Your task to perform on an android device: Open Youtube and go to "Your channel" Image 0: 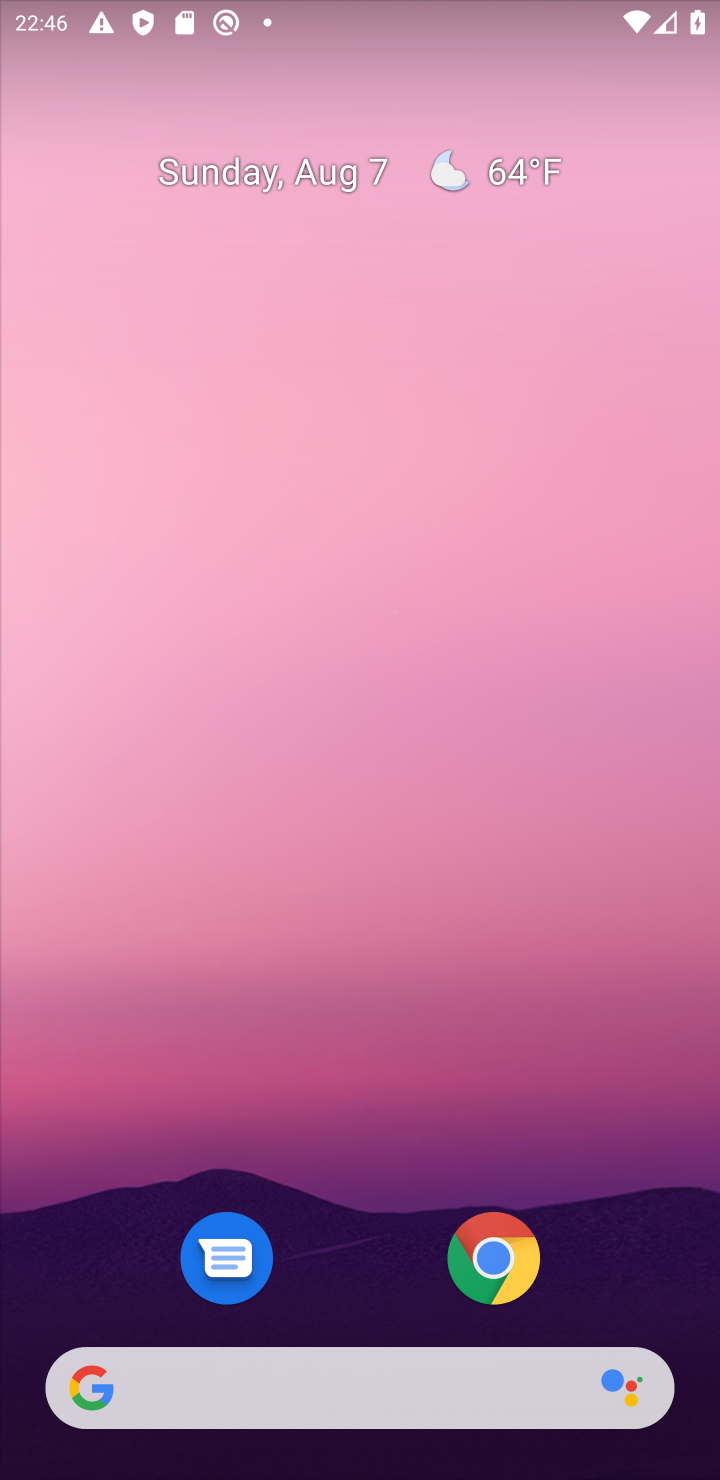
Step 0: press home button
Your task to perform on an android device: Open Youtube and go to "Your channel" Image 1: 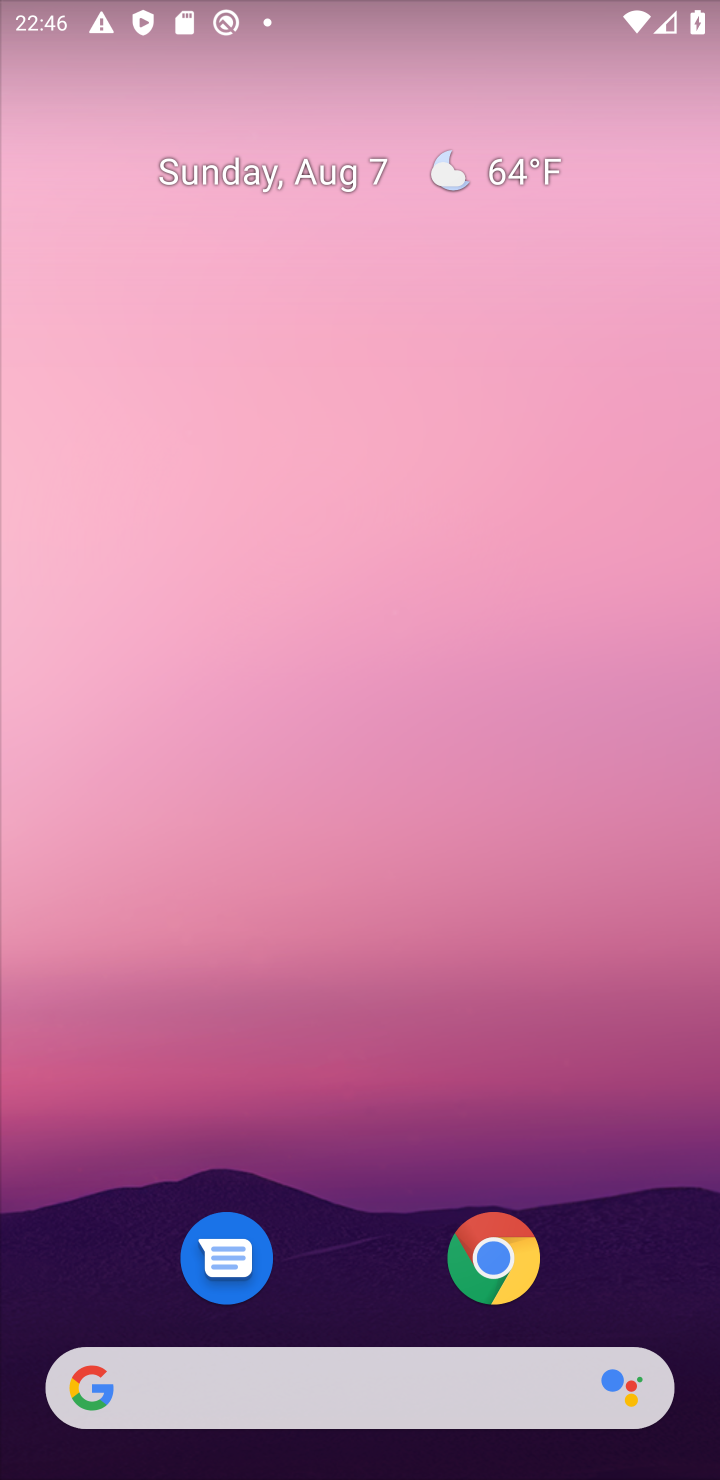
Step 1: drag from (358, 1160) to (279, 811)
Your task to perform on an android device: Open Youtube and go to "Your channel" Image 2: 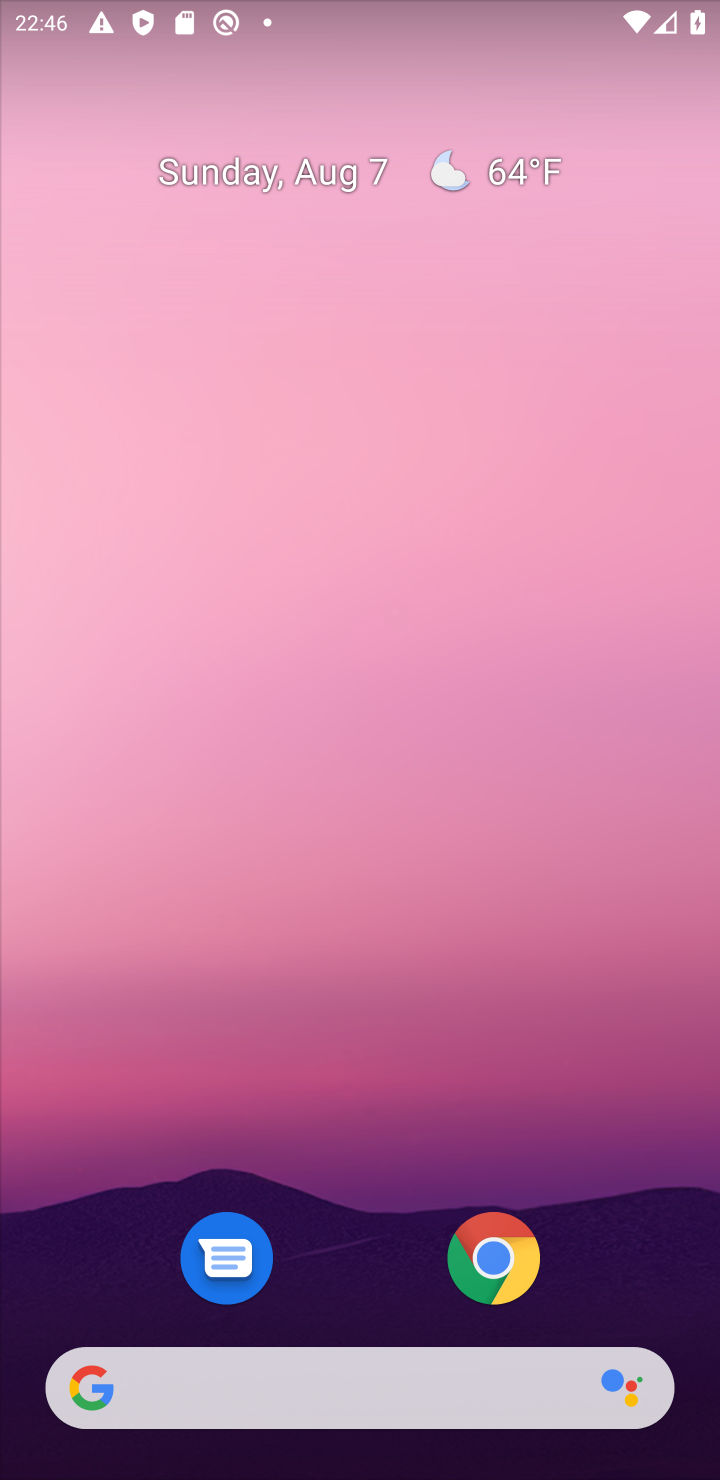
Step 2: drag from (363, 995) to (350, 234)
Your task to perform on an android device: Open Youtube and go to "Your channel" Image 3: 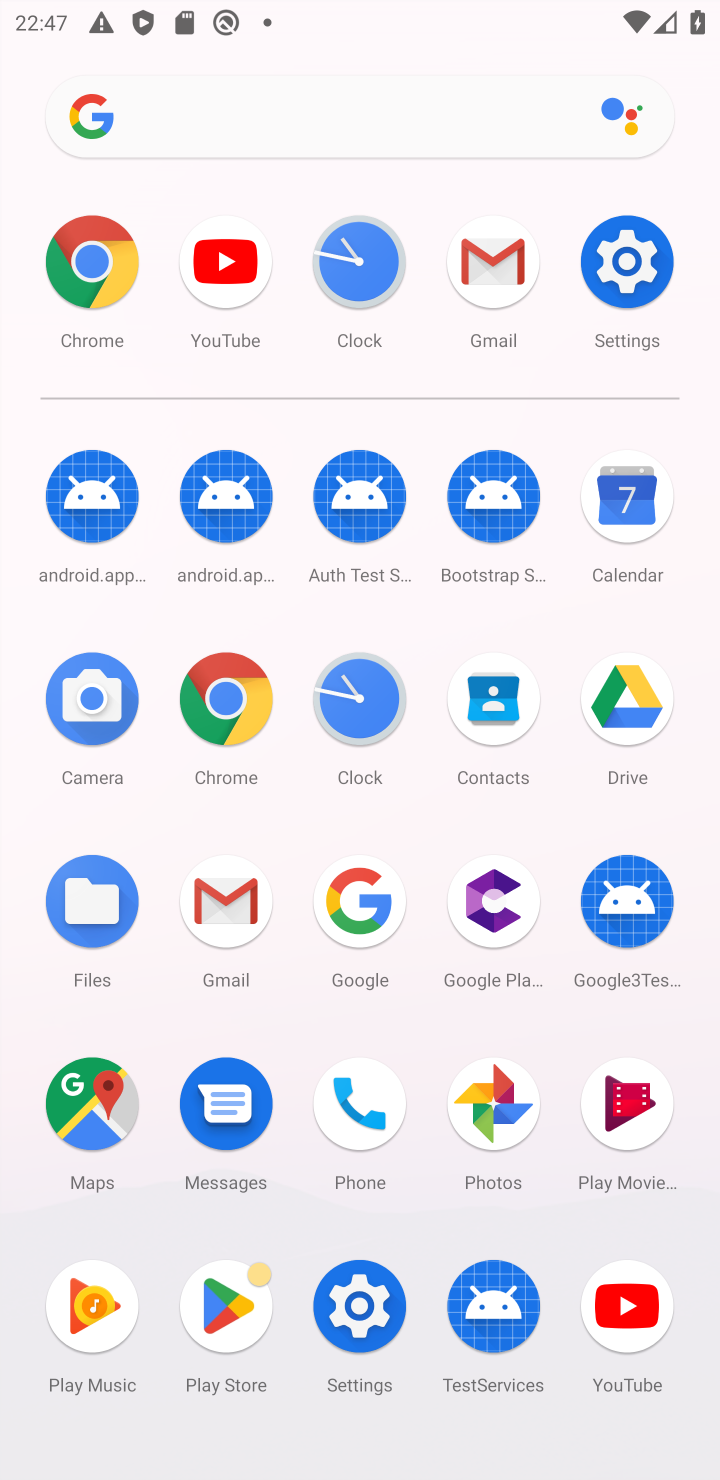
Step 3: click (247, 265)
Your task to perform on an android device: Open Youtube and go to "Your channel" Image 4: 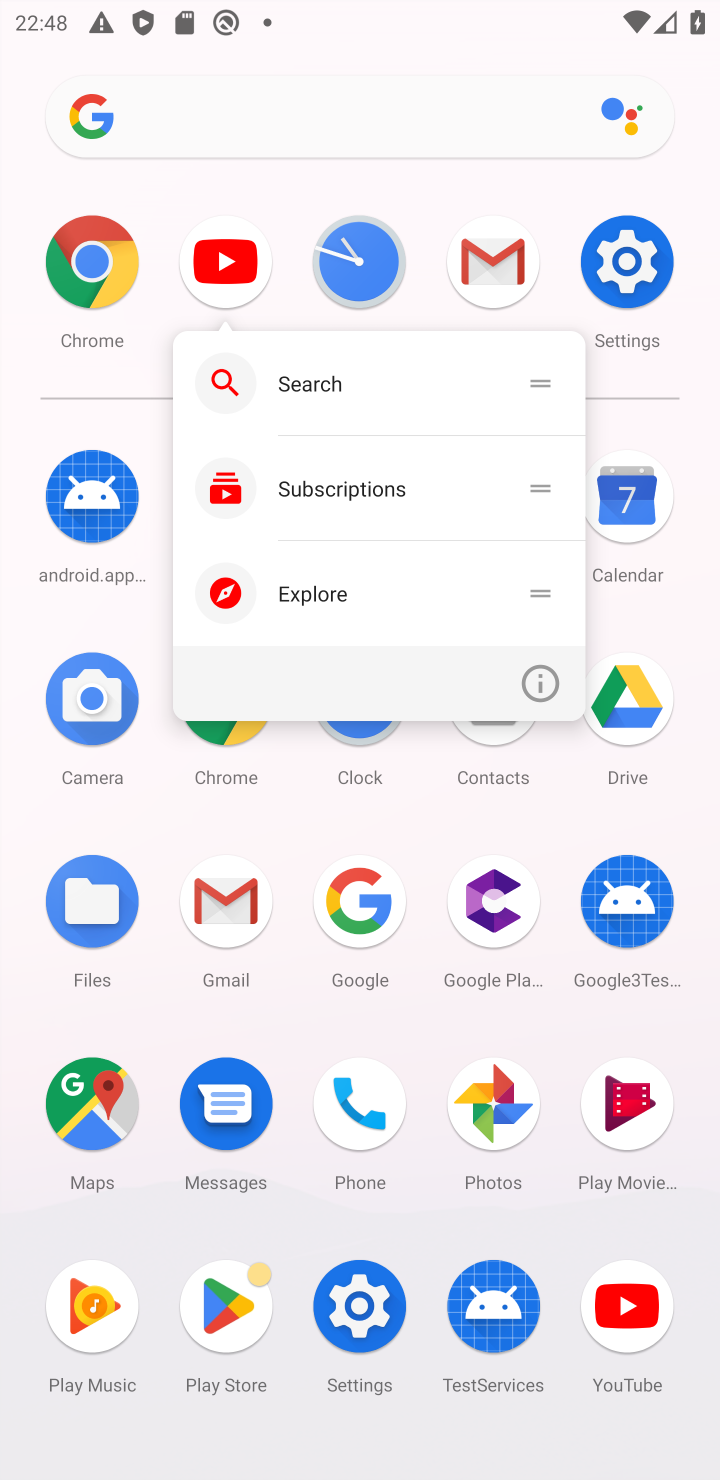
Step 4: click (219, 266)
Your task to perform on an android device: Open Youtube and go to "Your channel" Image 5: 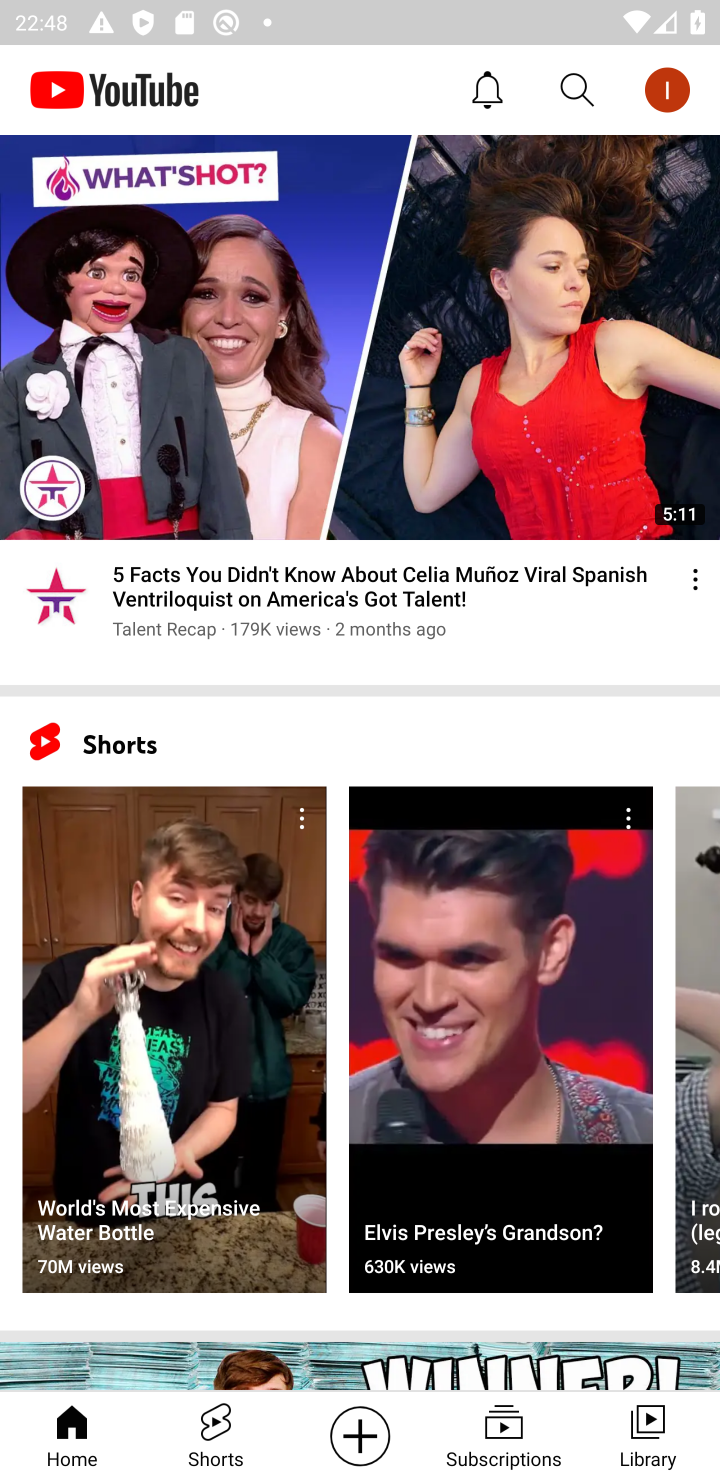
Step 5: click (664, 85)
Your task to perform on an android device: Open Youtube and go to "Your channel" Image 6: 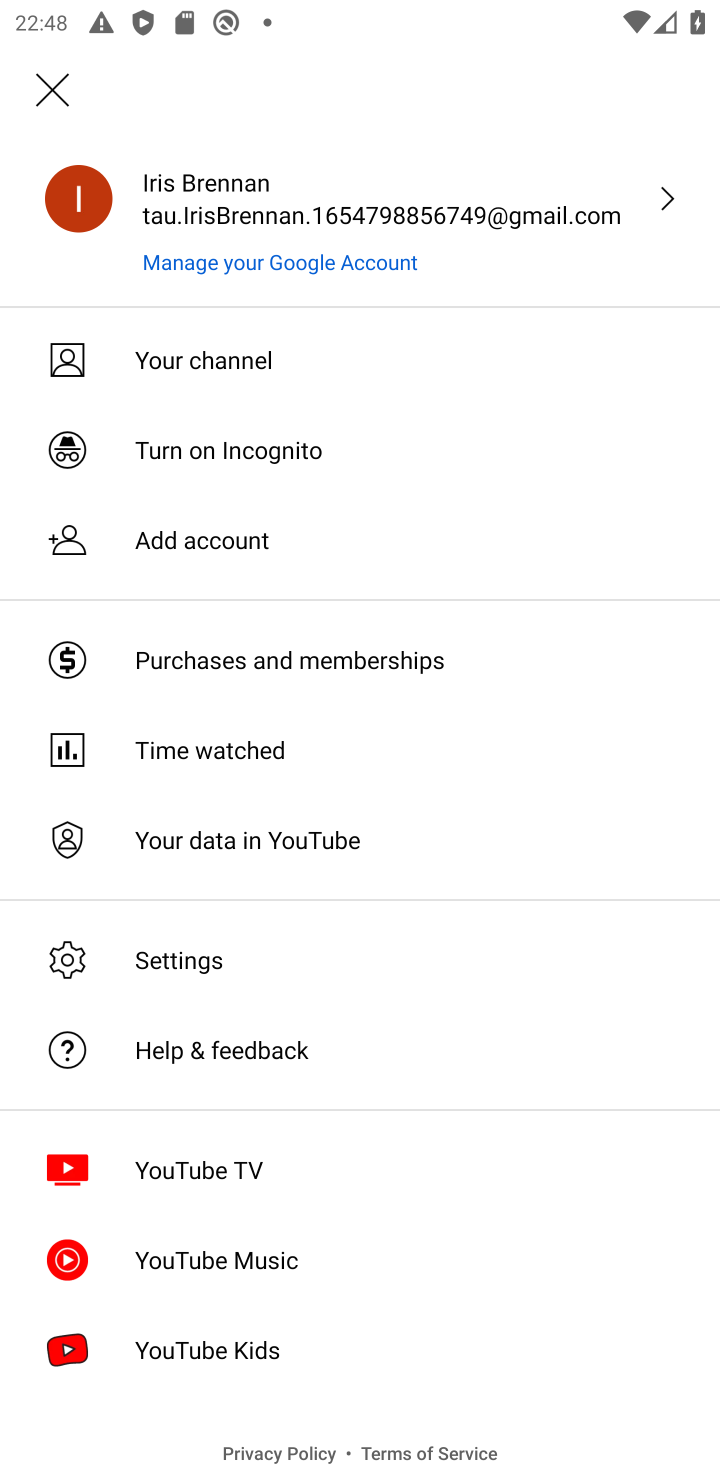
Step 6: click (171, 368)
Your task to perform on an android device: Open Youtube and go to "Your channel" Image 7: 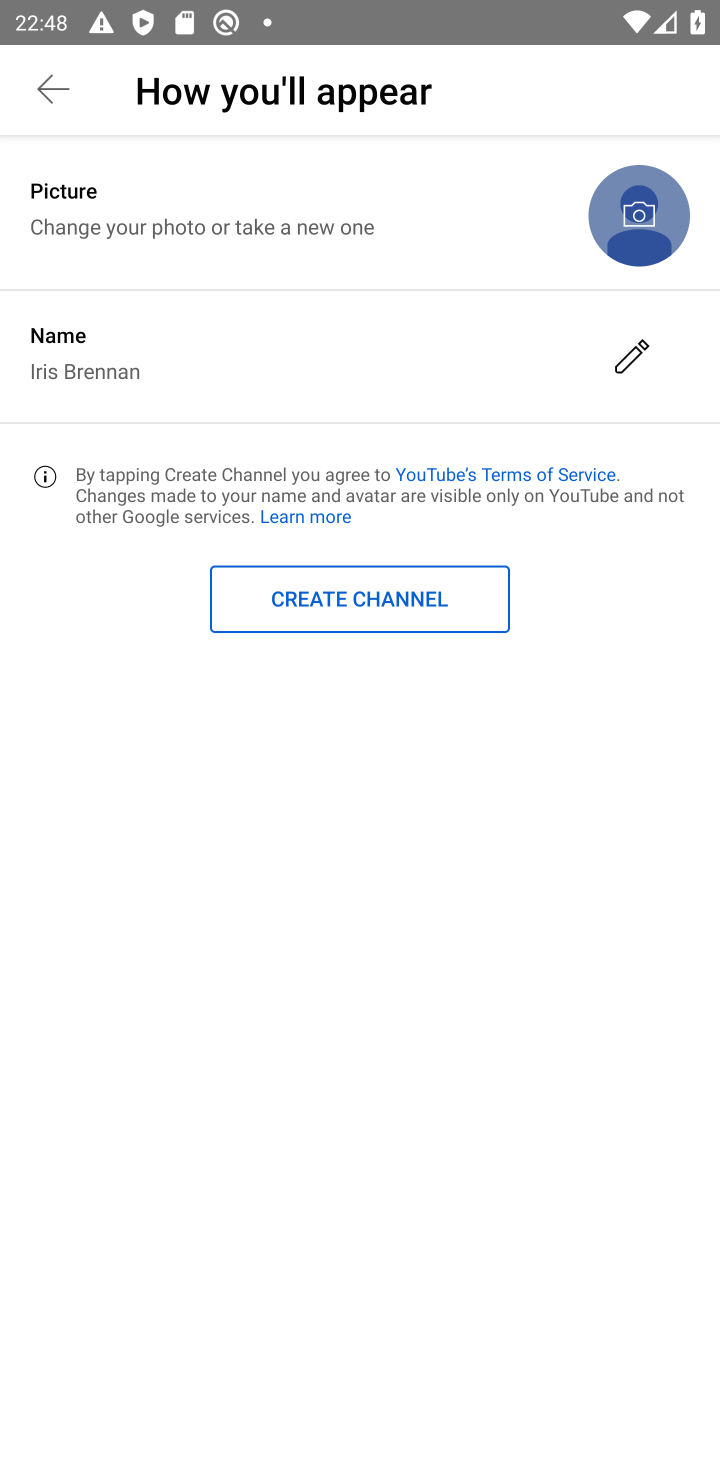
Step 7: task complete